Your task to perform on an android device: check out phone information Image 0: 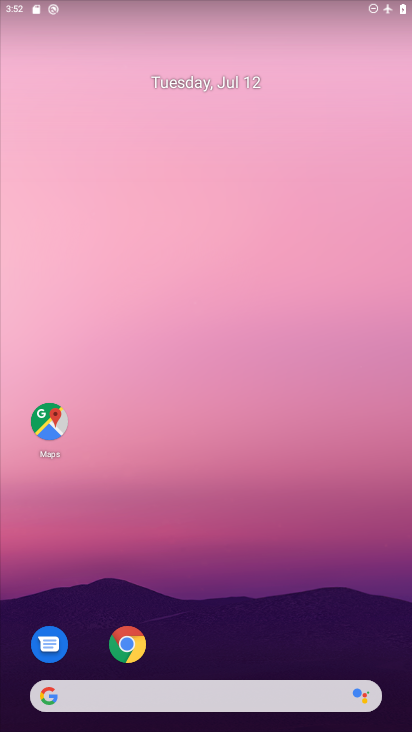
Step 0: drag from (239, 558) to (199, 136)
Your task to perform on an android device: check out phone information Image 1: 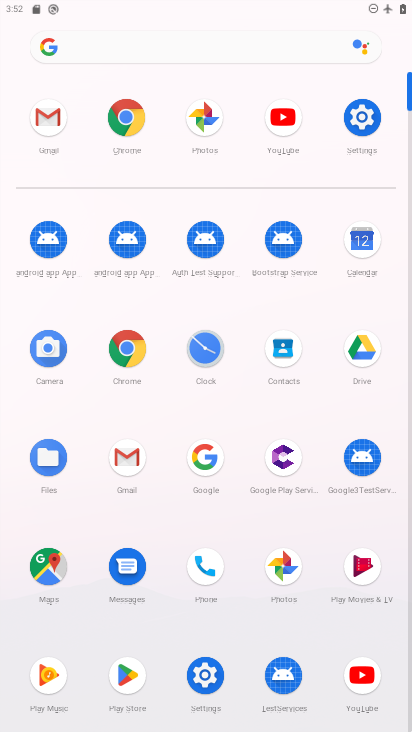
Step 1: click (206, 567)
Your task to perform on an android device: check out phone information Image 2: 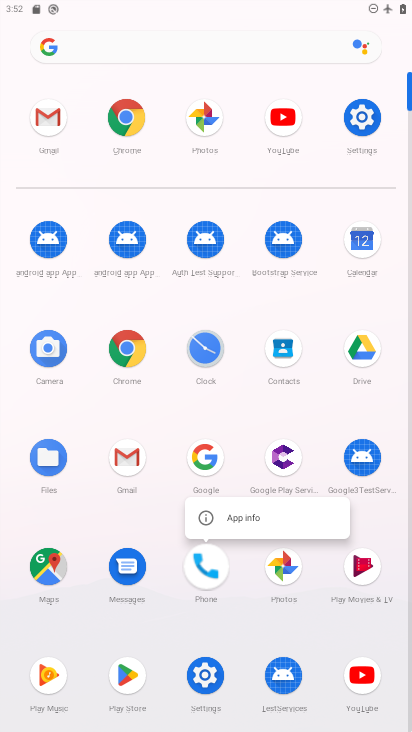
Step 2: click (239, 517)
Your task to perform on an android device: check out phone information Image 3: 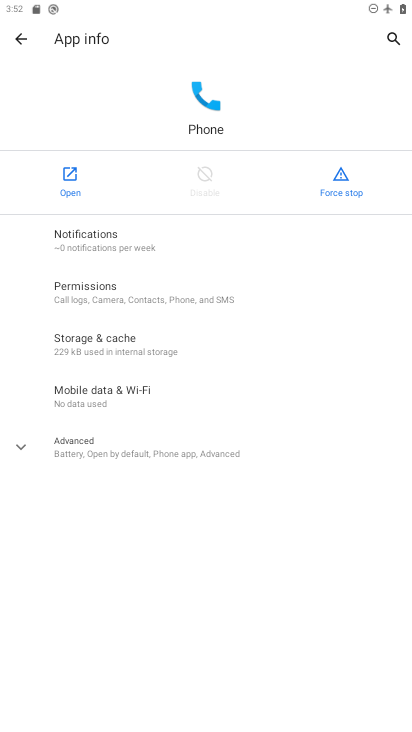
Step 3: click (161, 453)
Your task to perform on an android device: check out phone information Image 4: 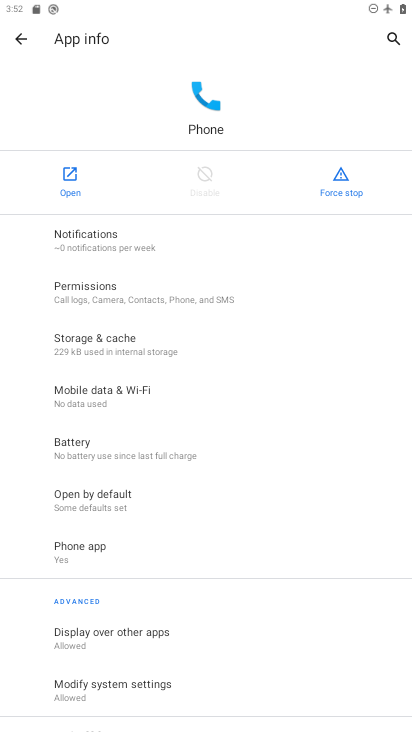
Step 4: task complete